Your task to perform on an android device: Go to Yahoo.com Image 0: 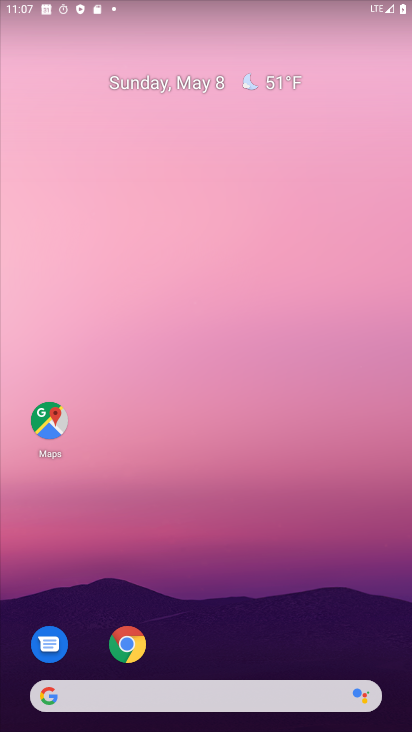
Step 0: drag from (188, 633) to (377, 4)
Your task to perform on an android device: Go to Yahoo.com Image 1: 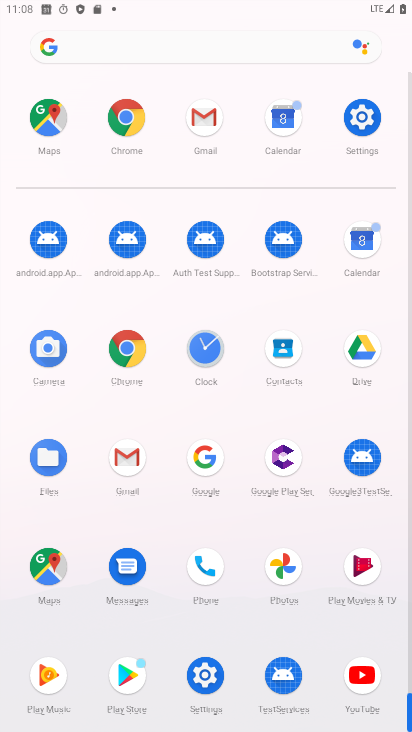
Step 1: click (153, 50)
Your task to perform on an android device: Go to Yahoo.com Image 2: 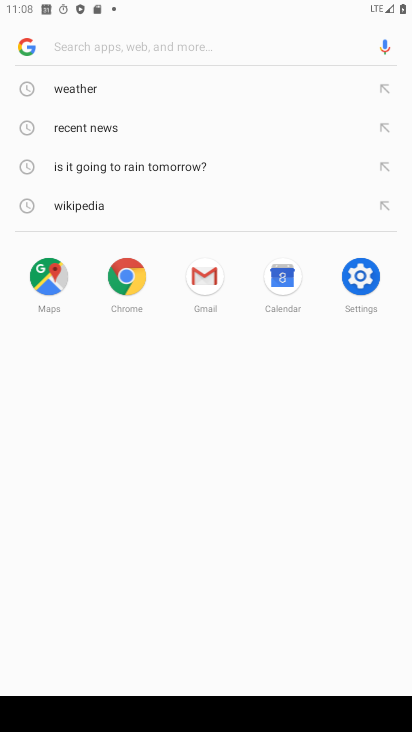
Step 2: type "yahoo"
Your task to perform on an android device: Go to Yahoo.com Image 3: 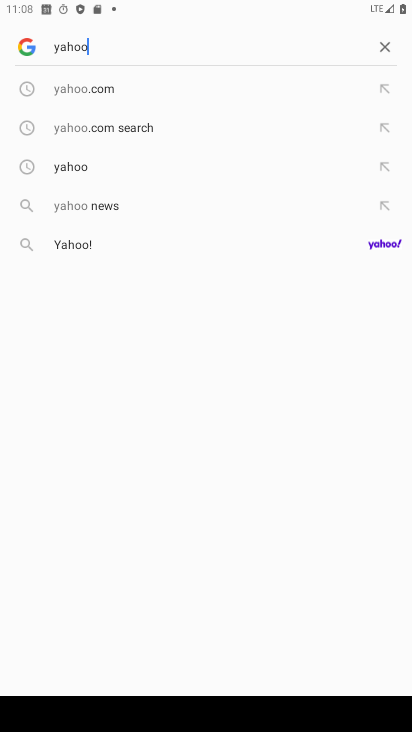
Step 3: click (95, 79)
Your task to perform on an android device: Go to Yahoo.com Image 4: 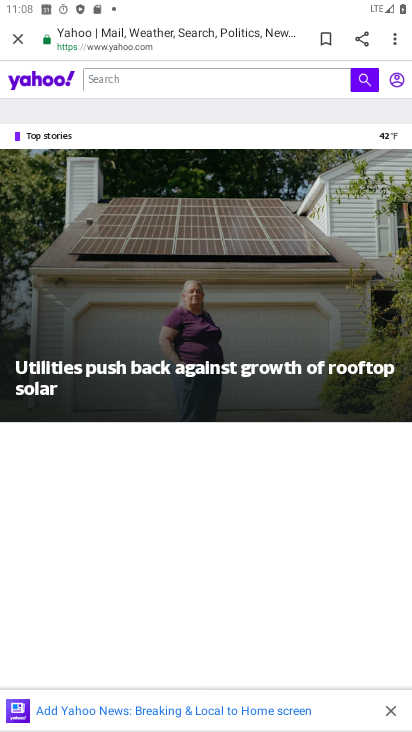
Step 4: task complete